Your task to perform on an android device: allow notifications from all sites in the chrome app Image 0: 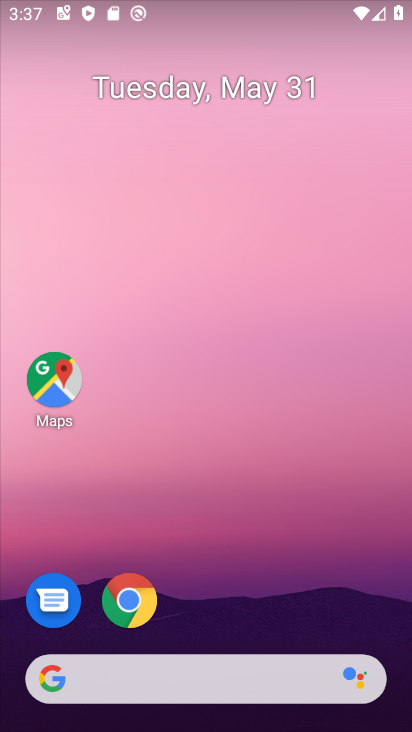
Step 0: press home button
Your task to perform on an android device: allow notifications from all sites in the chrome app Image 1: 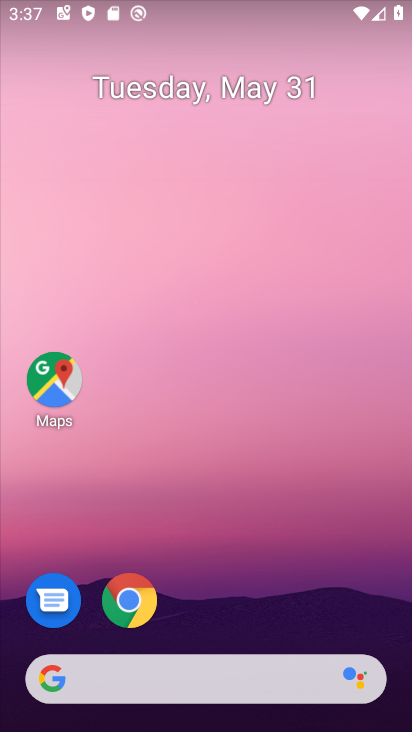
Step 1: click (127, 597)
Your task to perform on an android device: allow notifications from all sites in the chrome app Image 2: 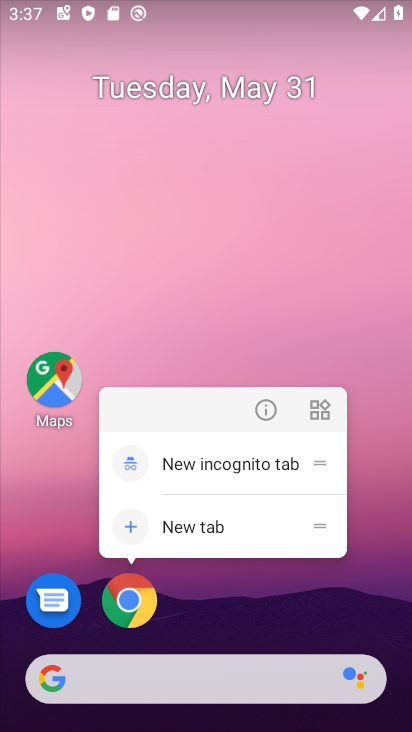
Step 2: click (126, 602)
Your task to perform on an android device: allow notifications from all sites in the chrome app Image 3: 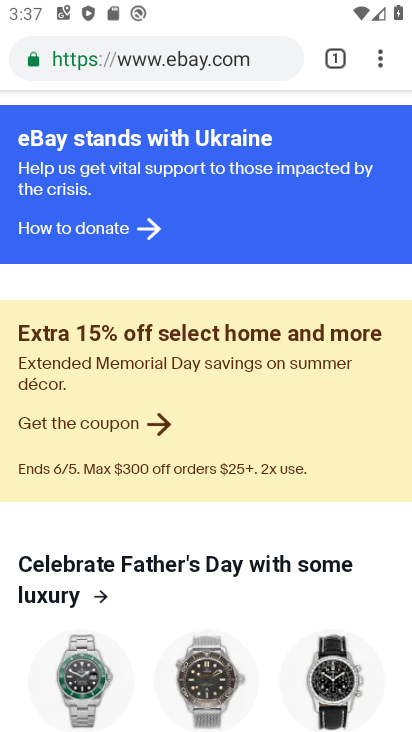
Step 3: click (380, 61)
Your task to perform on an android device: allow notifications from all sites in the chrome app Image 4: 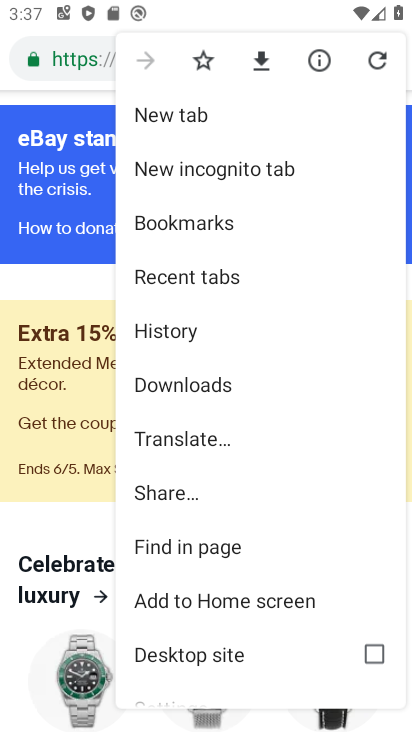
Step 4: drag from (239, 603) to (260, 203)
Your task to perform on an android device: allow notifications from all sites in the chrome app Image 5: 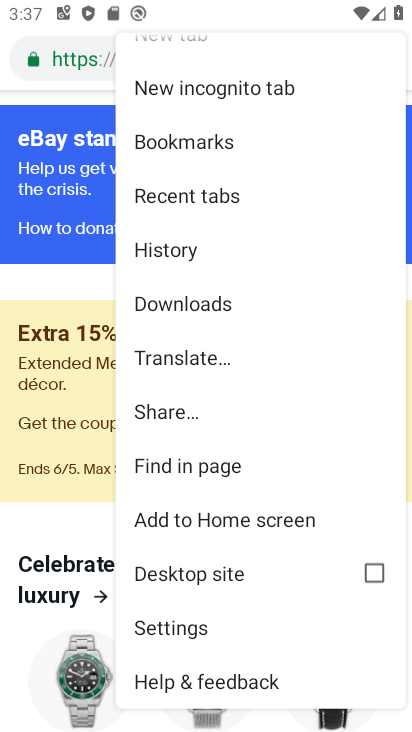
Step 5: click (221, 628)
Your task to perform on an android device: allow notifications from all sites in the chrome app Image 6: 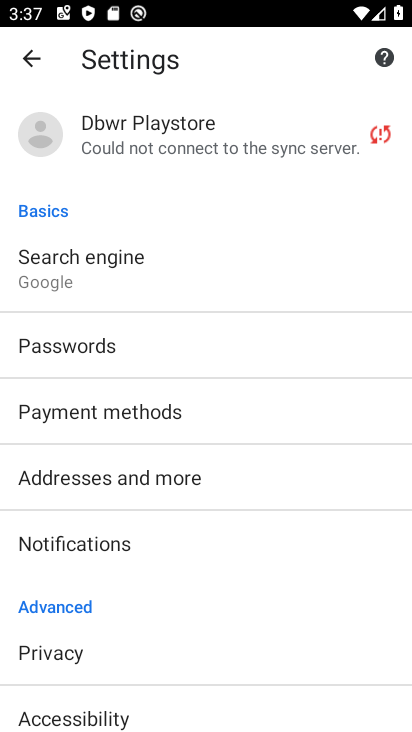
Step 6: drag from (198, 657) to (259, 284)
Your task to perform on an android device: allow notifications from all sites in the chrome app Image 7: 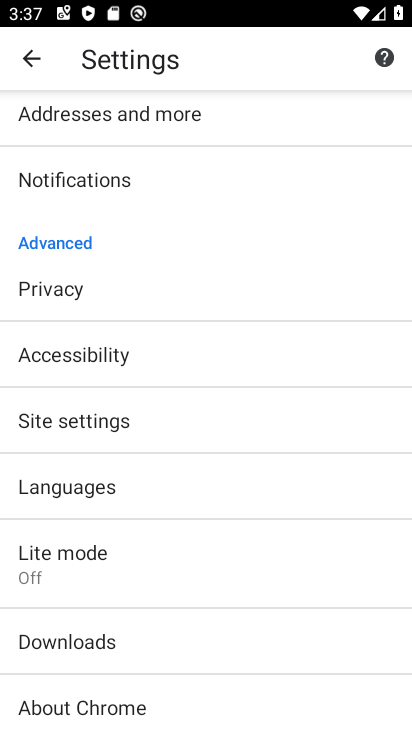
Step 7: click (150, 420)
Your task to perform on an android device: allow notifications from all sites in the chrome app Image 8: 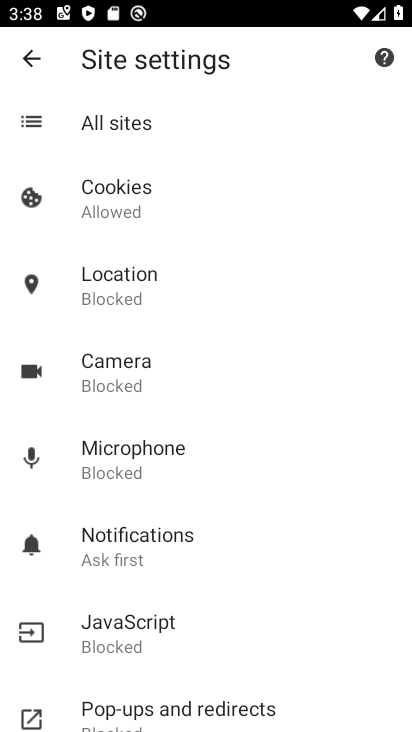
Step 8: click (155, 113)
Your task to perform on an android device: allow notifications from all sites in the chrome app Image 9: 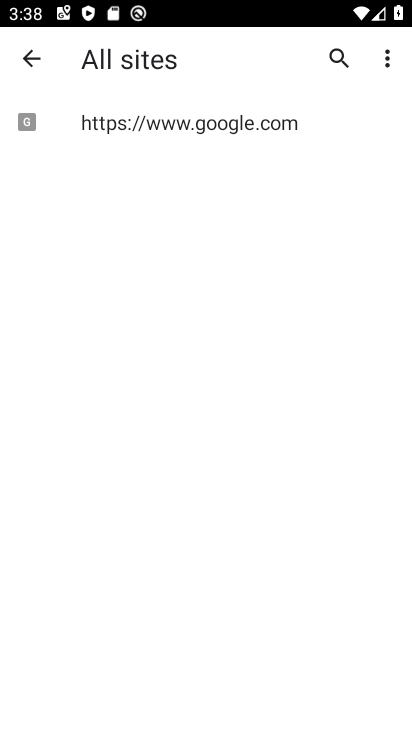
Step 9: click (175, 121)
Your task to perform on an android device: allow notifications from all sites in the chrome app Image 10: 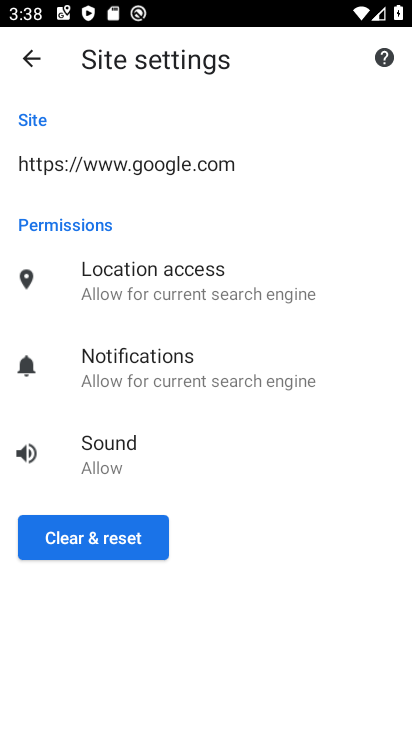
Step 10: task complete